Your task to perform on an android device: Open the calendar app, open the side menu, and click the "Day" option Image 0: 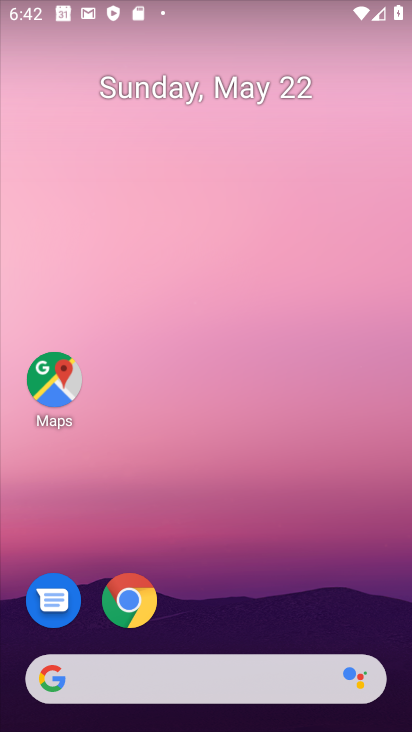
Step 0: drag from (359, 607) to (278, 48)
Your task to perform on an android device: Open the calendar app, open the side menu, and click the "Day" option Image 1: 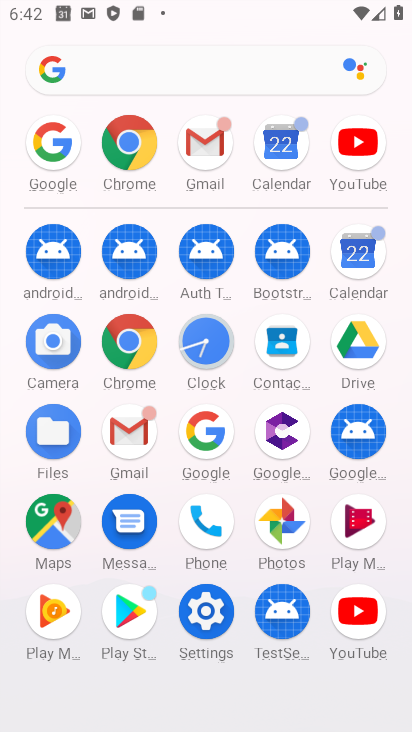
Step 1: click (272, 168)
Your task to perform on an android device: Open the calendar app, open the side menu, and click the "Day" option Image 2: 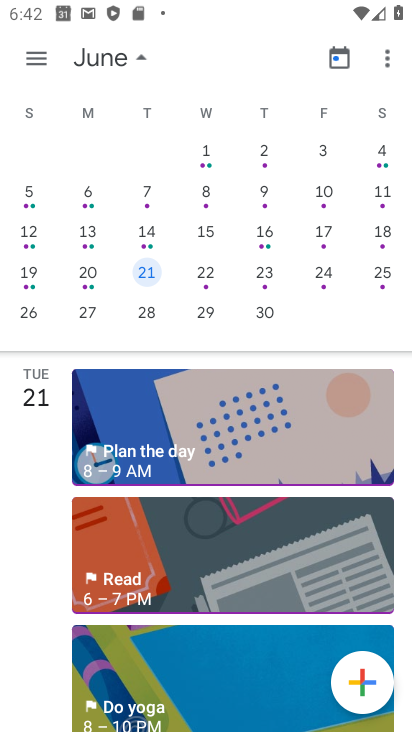
Step 2: click (33, 60)
Your task to perform on an android device: Open the calendar app, open the side menu, and click the "Day" option Image 3: 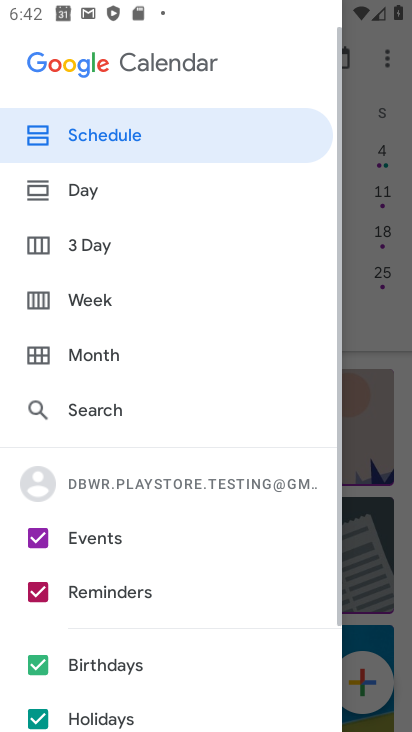
Step 3: click (125, 197)
Your task to perform on an android device: Open the calendar app, open the side menu, and click the "Day" option Image 4: 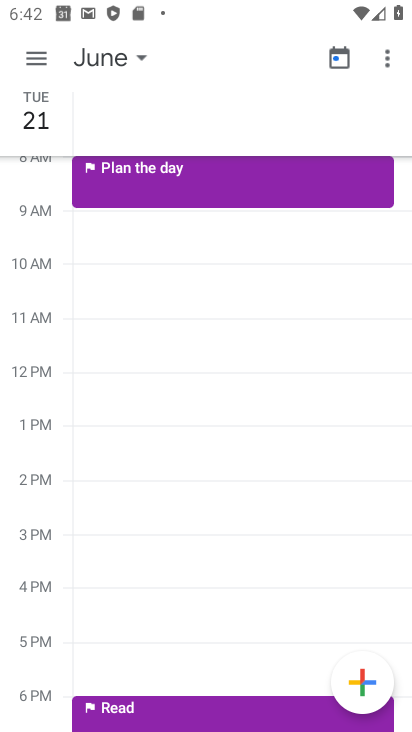
Step 4: task complete